Your task to perform on an android device: open chrome and create a bookmark for the current page Image 0: 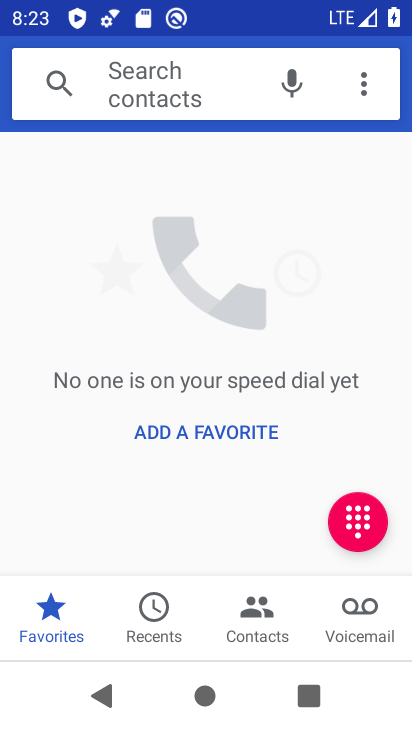
Step 0: press home button
Your task to perform on an android device: open chrome and create a bookmark for the current page Image 1: 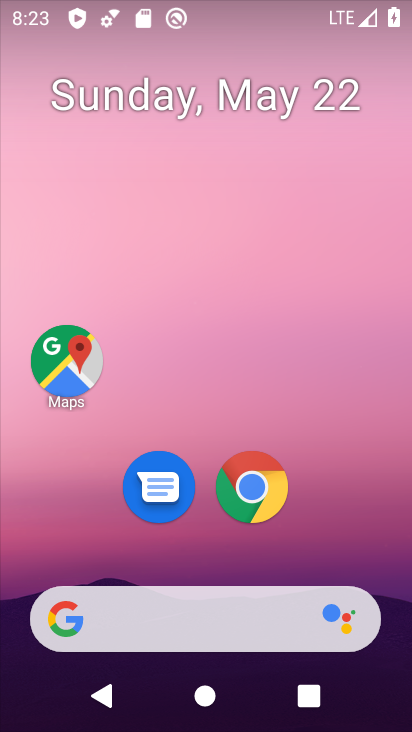
Step 1: drag from (365, 513) to (311, 6)
Your task to perform on an android device: open chrome and create a bookmark for the current page Image 2: 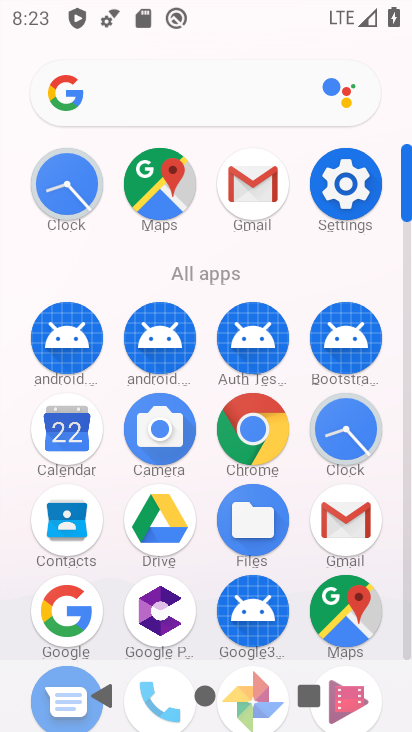
Step 2: click (263, 450)
Your task to perform on an android device: open chrome and create a bookmark for the current page Image 3: 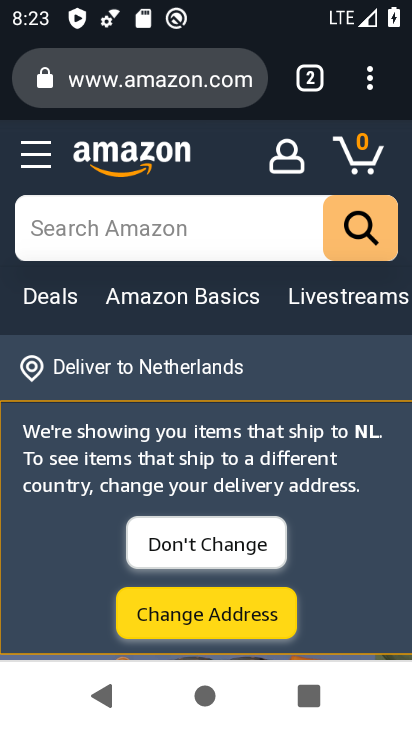
Step 3: drag from (378, 83) to (102, 112)
Your task to perform on an android device: open chrome and create a bookmark for the current page Image 4: 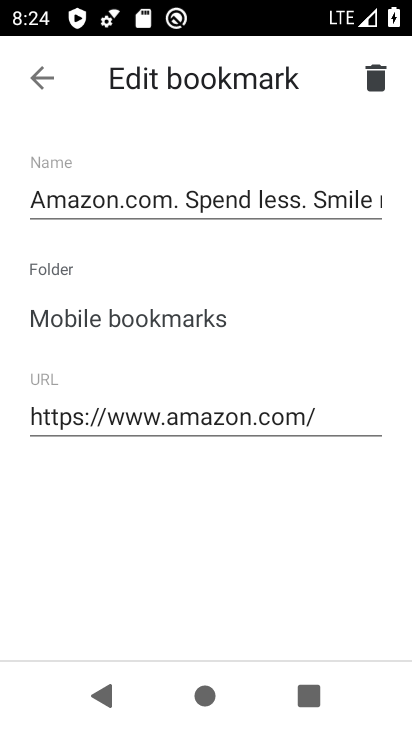
Step 4: click (34, 83)
Your task to perform on an android device: open chrome and create a bookmark for the current page Image 5: 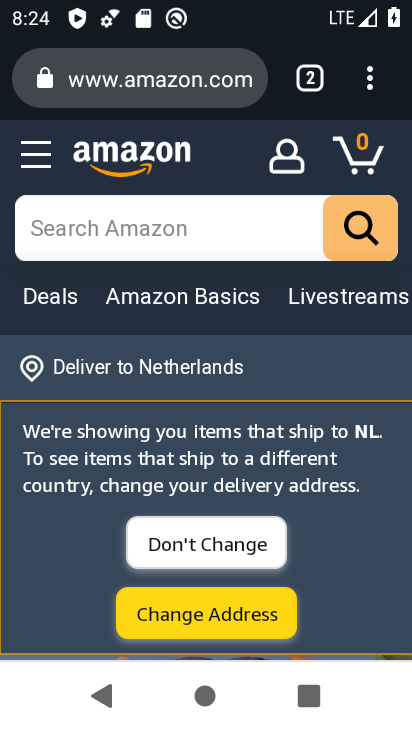
Step 5: task complete